Your task to perform on an android device: Open Google Chrome Image 0: 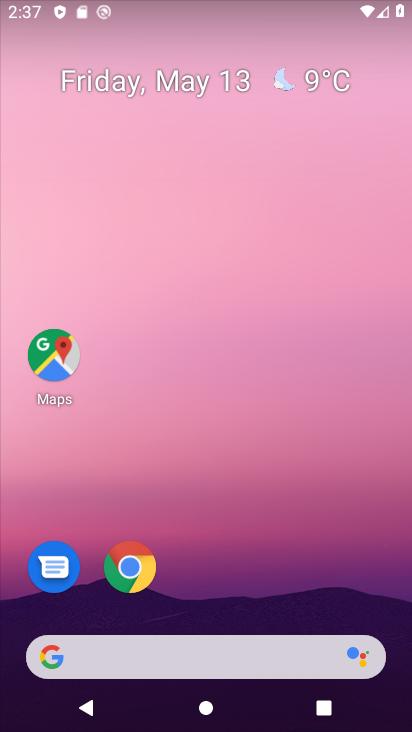
Step 0: click (145, 584)
Your task to perform on an android device: Open Google Chrome Image 1: 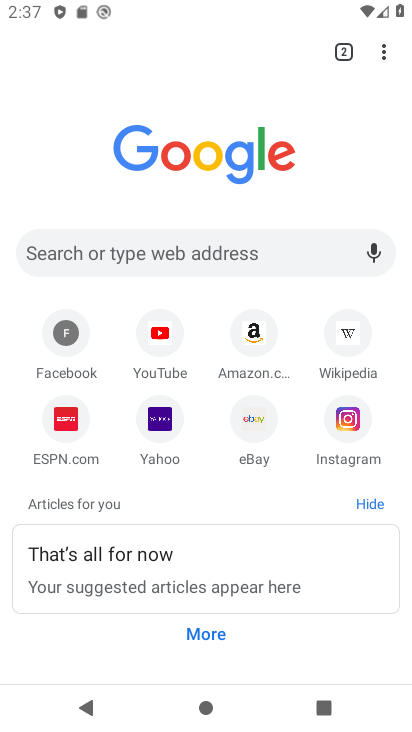
Step 1: task complete